Your task to perform on an android device: Show me productivity apps on the Play Store Image 0: 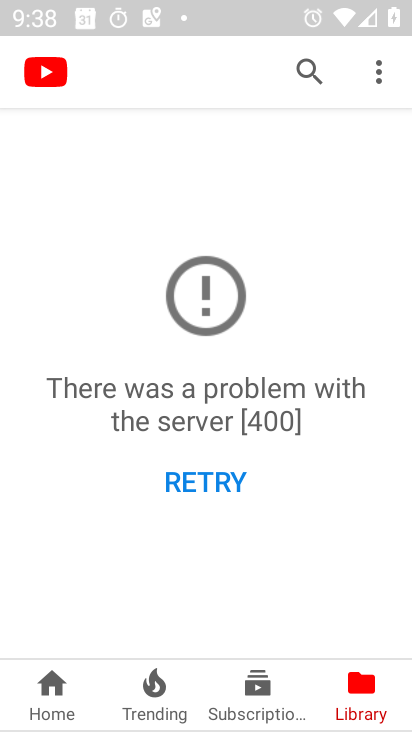
Step 0: press back button
Your task to perform on an android device: Show me productivity apps on the Play Store Image 1: 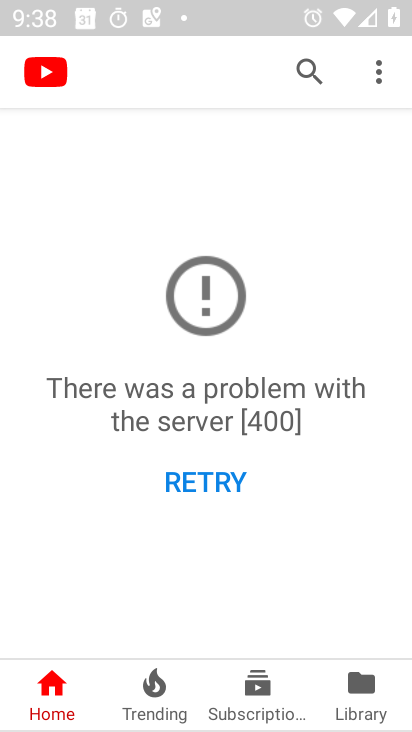
Step 1: press home button
Your task to perform on an android device: Show me productivity apps on the Play Store Image 2: 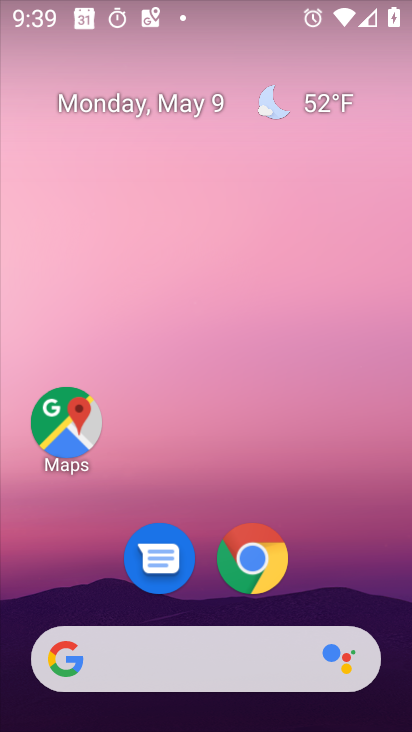
Step 2: drag from (206, 567) to (301, 21)
Your task to perform on an android device: Show me productivity apps on the Play Store Image 3: 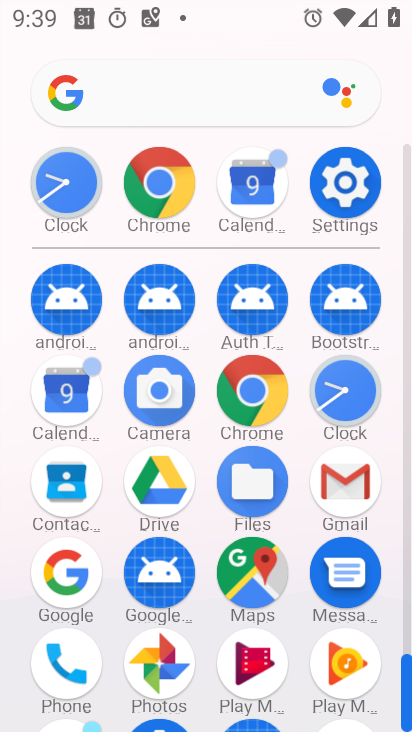
Step 3: drag from (198, 648) to (251, 251)
Your task to perform on an android device: Show me productivity apps on the Play Store Image 4: 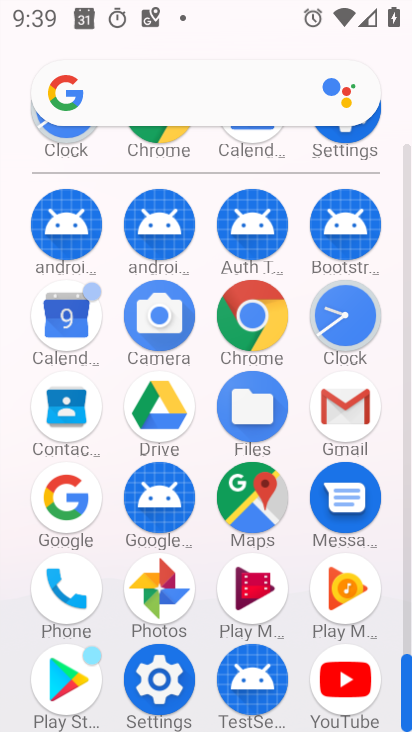
Step 4: click (65, 693)
Your task to perform on an android device: Show me productivity apps on the Play Store Image 5: 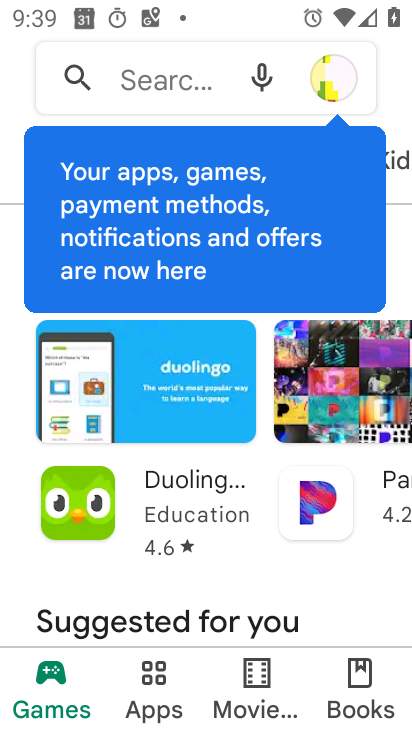
Step 5: click (151, 682)
Your task to perform on an android device: Show me productivity apps on the Play Store Image 6: 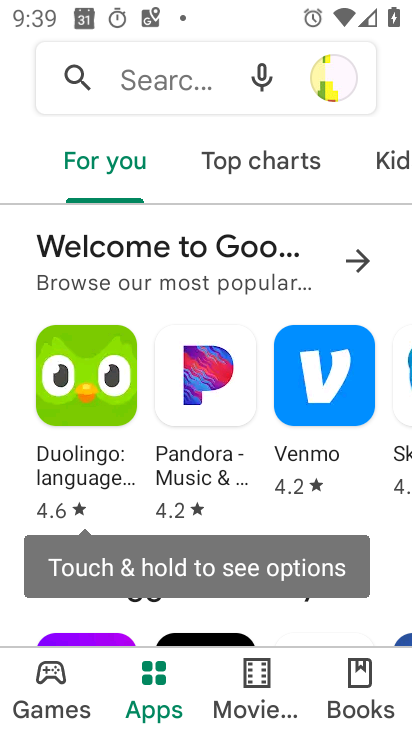
Step 6: drag from (162, 597) to (261, 136)
Your task to perform on an android device: Show me productivity apps on the Play Store Image 7: 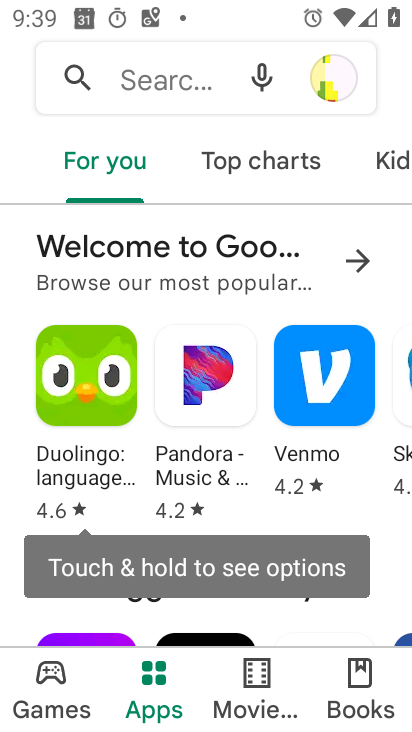
Step 7: drag from (185, 496) to (214, 176)
Your task to perform on an android device: Show me productivity apps on the Play Store Image 8: 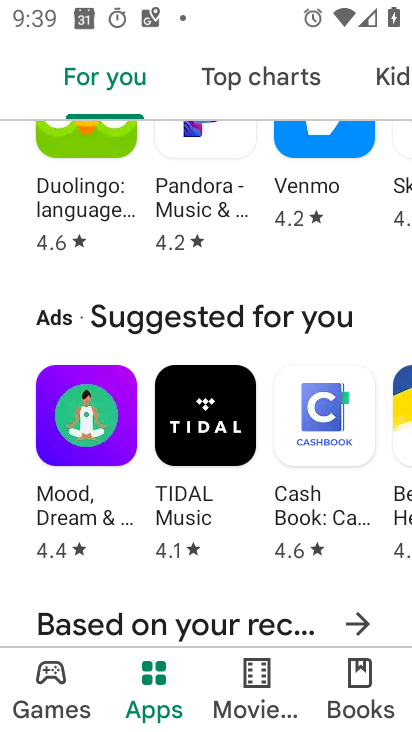
Step 8: drag from (156, 531) to (256, 77)
Your task to perform on an android device: Show me productivity apps on the Play Store Image 9: 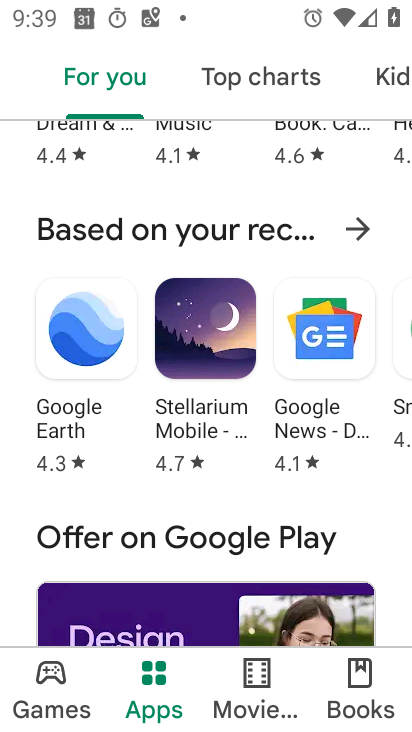
Step 9: drag from (200, 547) to (294, 84)
Your task to perform on an android device: Show me productivity apps on the Play Store Image 10: 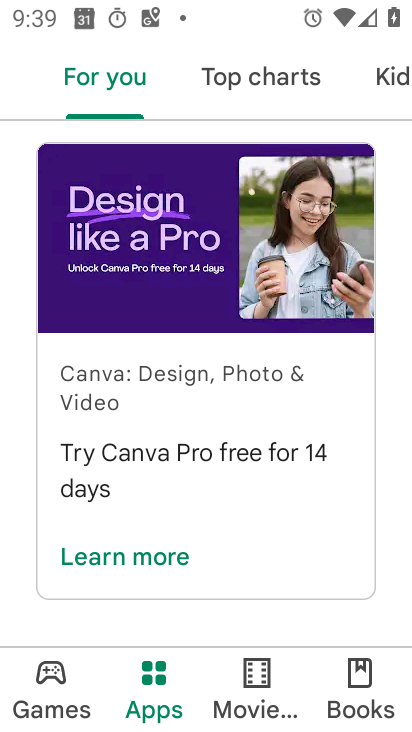
Step 10: drag from (136, 609) to (249, 69)
Your task to perform on an android device: Show me productivity apps on the Play Store Image 11: 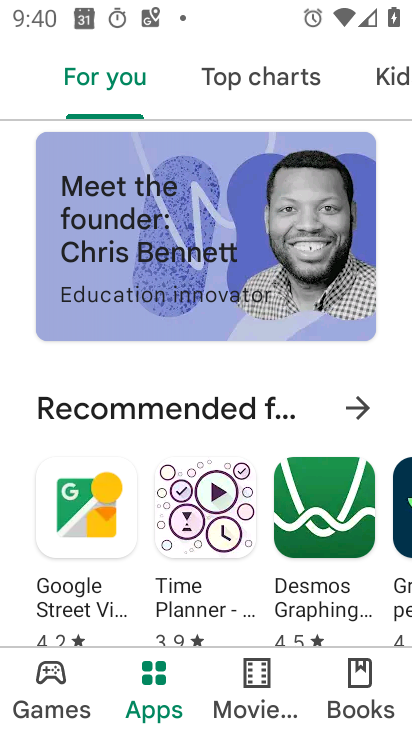
Step 11: drag from (186, 577) to (269, 80)
Your task to perform on an android device: Show me productivity apps on the Play Store Image 12: 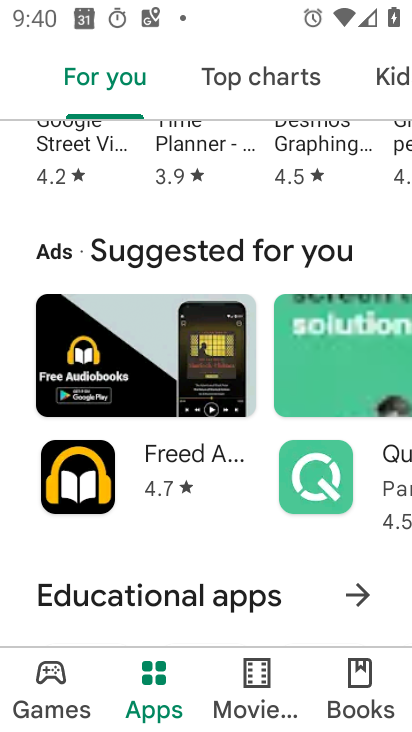
Step 12: drag from (205, 502) to (338, 1)
Your task to perform on an android device: Show me productivity apps on the Play Store Image 13: 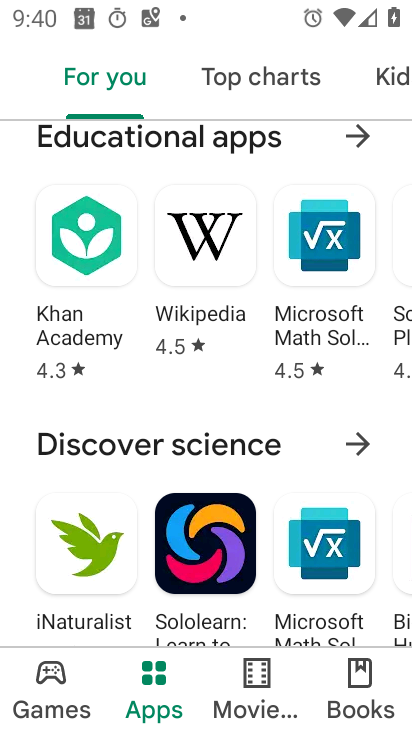
Step 13: drag from (221, 553) to (313, 86)
Your task to perform on an android device: Show me productivity apps on the Play Store Image 14: 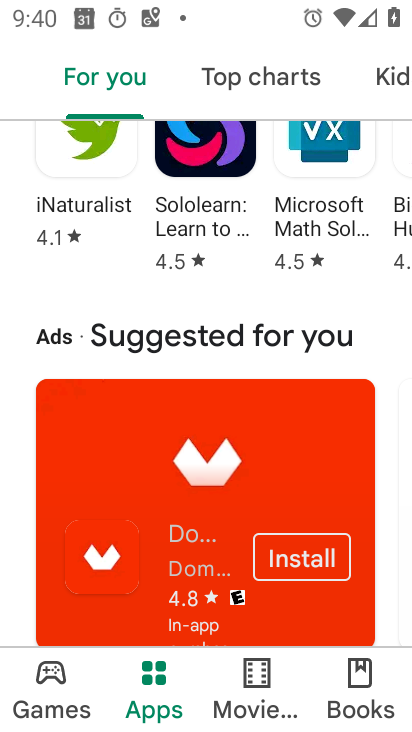
Step 14: drag from (219, 168) to (192, 646)
Your task to perform on an android device: Show me productivity apps on the Play Store Image 15: 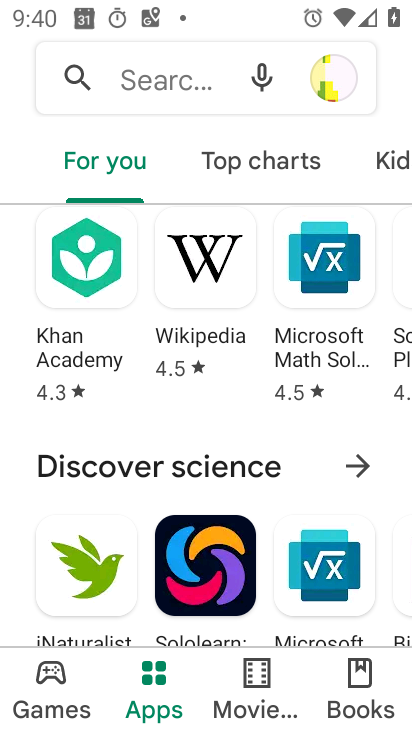
Step 15: drag from (216, 368) to (195, 691)
Your task to perform on an android device: Show me productivity apps on the Play Store Image 16: 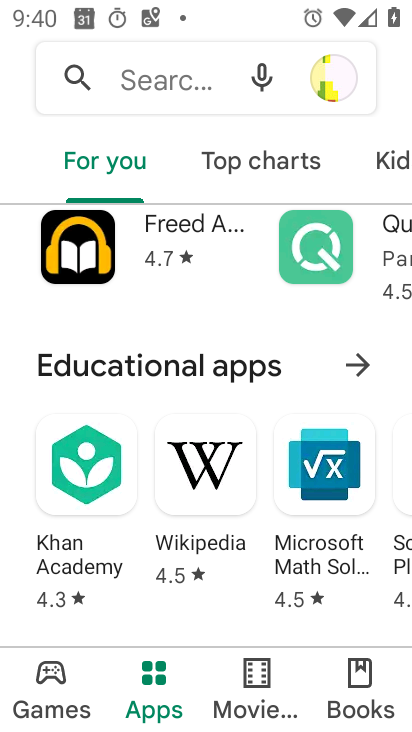
Step 16: drag from (187, 340) to (153, 699)
Your task to perform on an android device: Show me productivity apps on the Play Store Image 17: 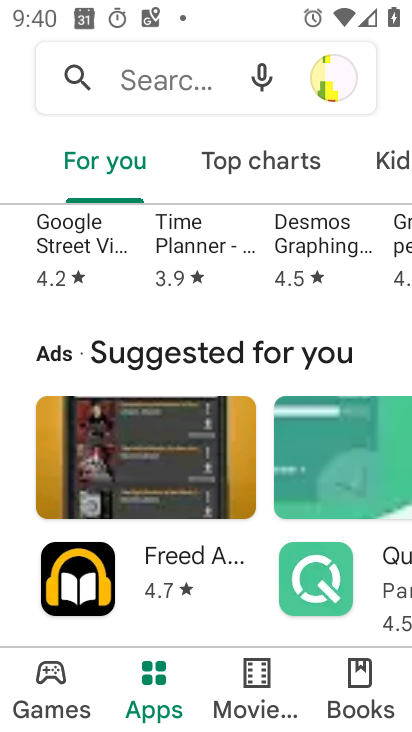
Step 17: drag from (158, 251) to (115, 652)
Your task to perform on an android device: Show me productivity apps on the Play Store Image 18: 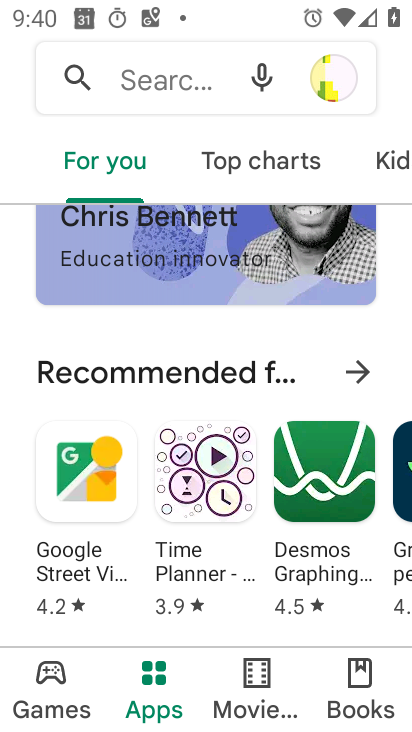
Step 18: drag from (165, 315) to (124, 681)
Your task to perform on an android device: Show me productivity apps on the Play Store Image 19: 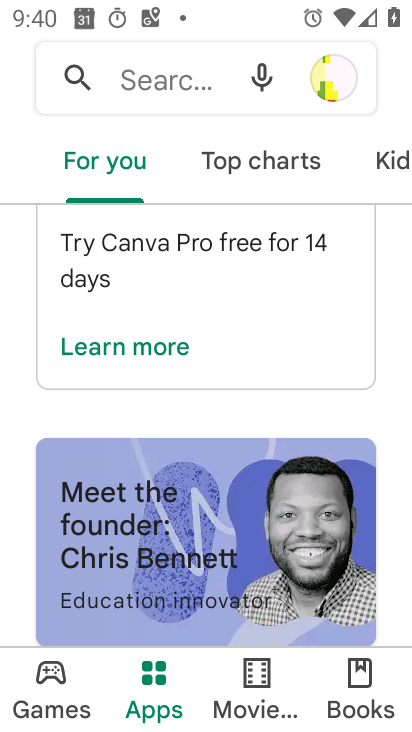
Step 19: drag from (148, 243) to (151, 635)
Your task to perform on an android device: Show me productivity apps on the Play Store Image 20: 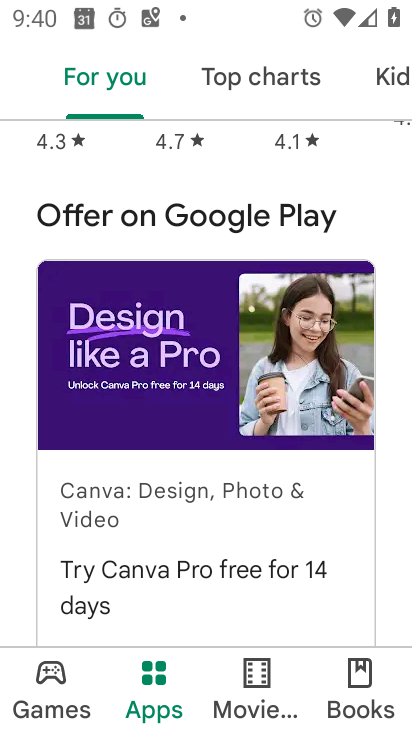
Step 20: drag from (190, 234) to (260, 87)
Your task to perform on an android device: Show me productivity apps on the Play Store Image 21: 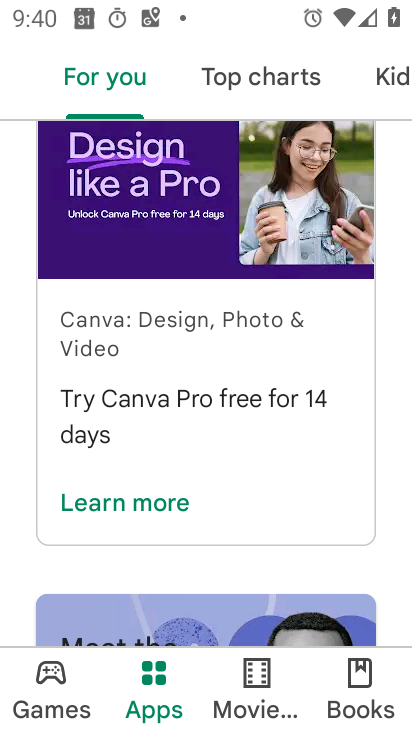
Step 21: drag from (258, 521) to (338, 26)
Your task to perform on an android device: Show me productivity apps on the Play Store Image 22: 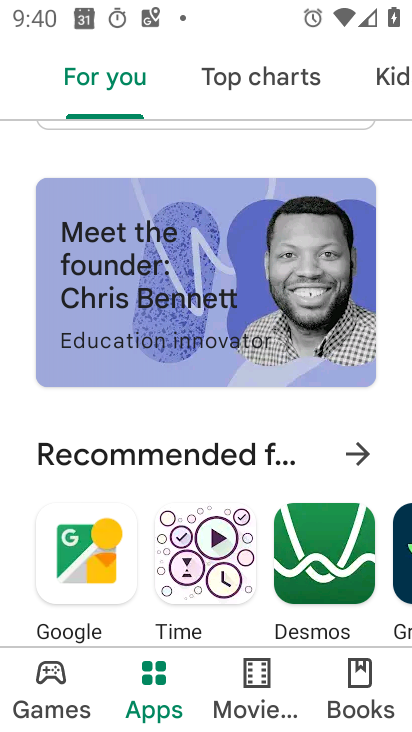
Step 22: drag from (278, 509) to (314, 0)
Your task to perform on an android device: Show me productivity apps on the Play Store Image 23: 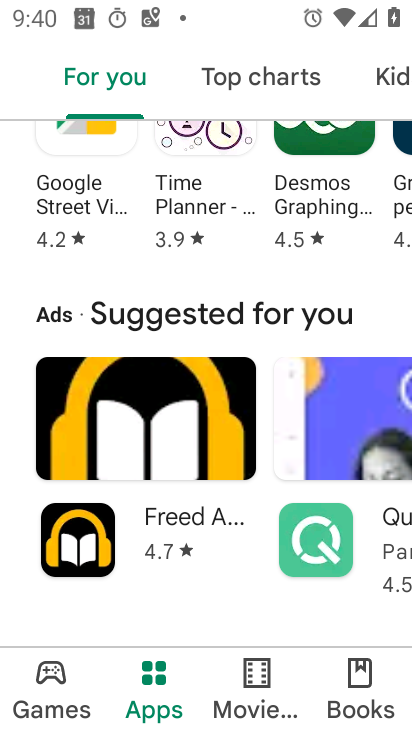
Step 23: drag from (218, 540) to (298, 6)
Your task to perform on an android device: Show me productivity apps on the Play Store Image 24: 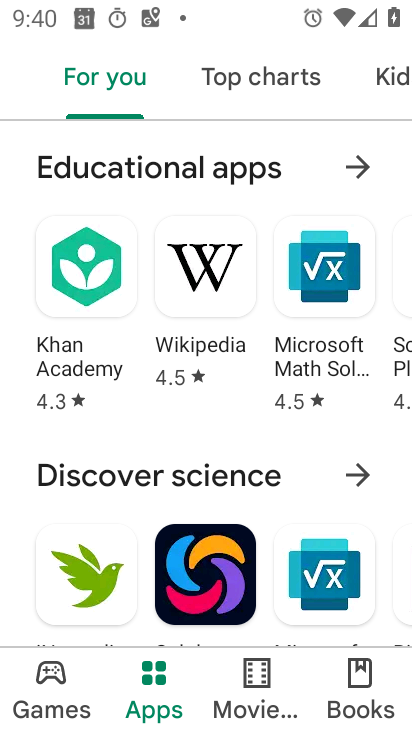
Step 24: drag from (191, 582) to (336, 0)
Your task to perform on an android device: Show me productivity apps on the Play Store Image 25: 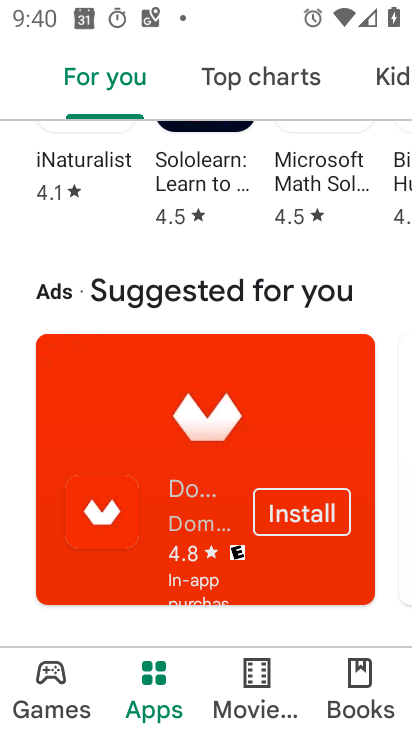
Step 25: drag from (230, 543) to (289, 6)
Your task to perform on an android device: Show me productivity apps on the Play Store Image 26: 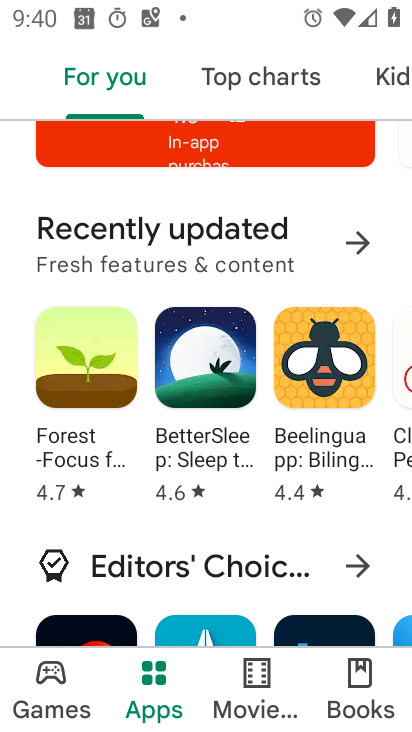
Step 26: drag from (240, 573) to (335, 10)
Your task to perform on an android device: Show me productivity apps on the Play Store Image 27: 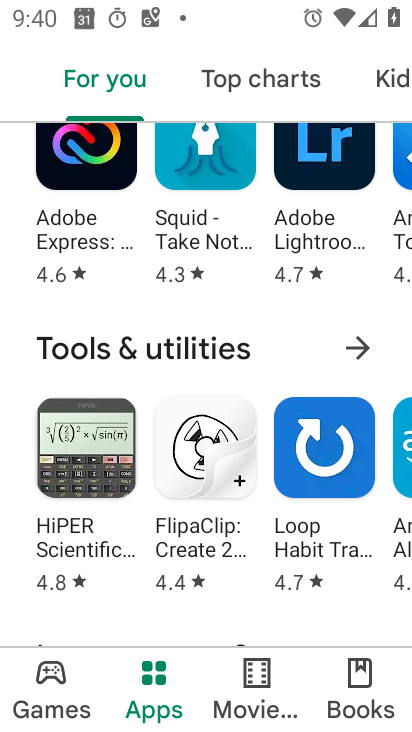
Step 27: drag from (215, 557) to (322, 68)
Your task to perform on an android device: Show me productivity apps on the Play Store Image 28: 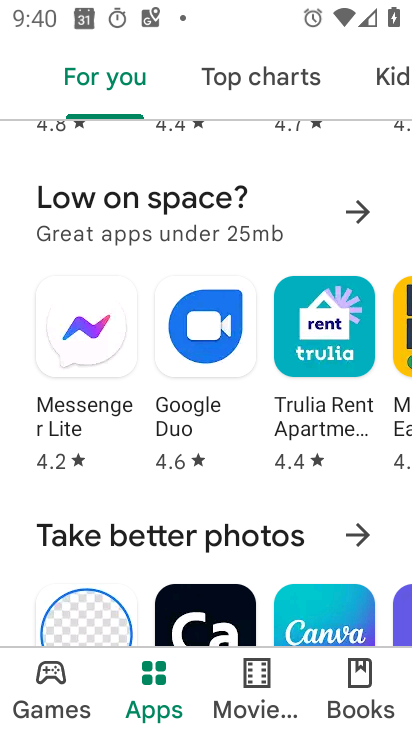
Step 28: drag from (194, 579) to (353, 0)
Your task to perform on an android device: Show me productivity apps on the Play Store Image 29: 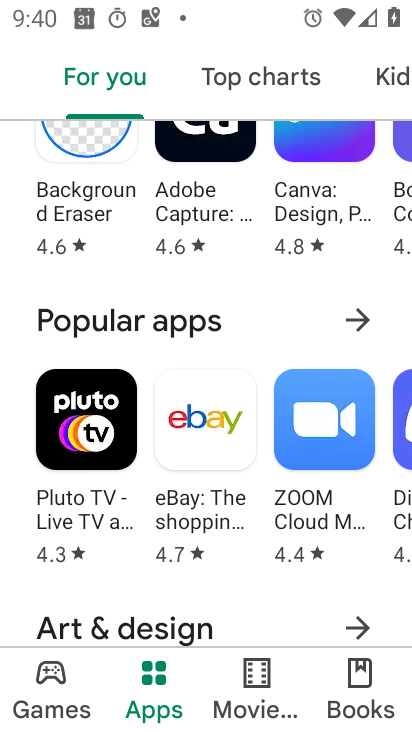
Step 29: drag from (199, 580) to (291, 106)
Your task to perform on an android device: Show me productivity apps on the Play Store Image 30: 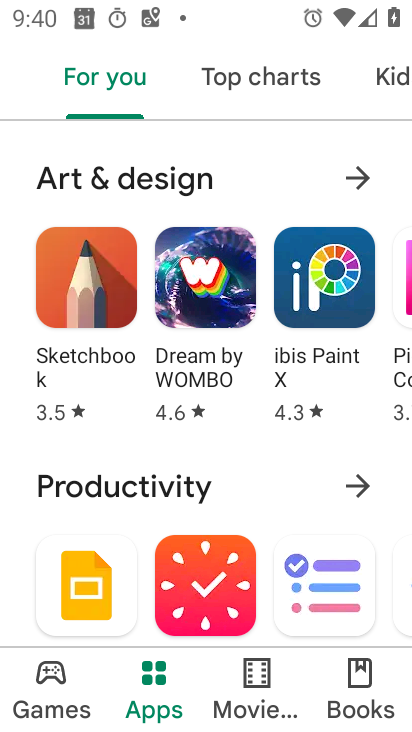
Step 30: click (357, 460)
Your task to perform on an android device: Show me productivity apps on the Play Store Image 31: 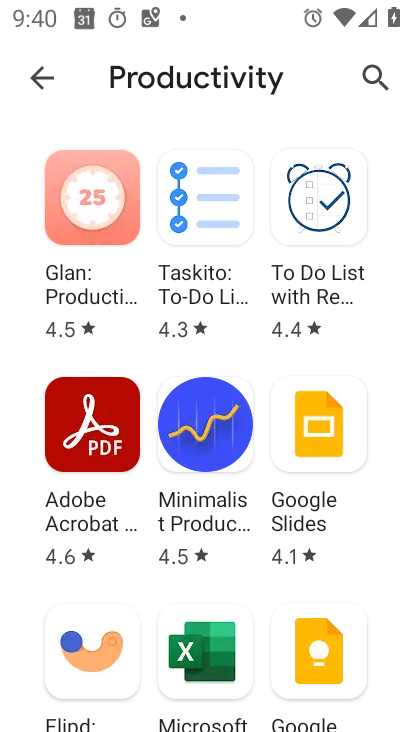
Step 31: task complete